Your task to perform on an android device: View the shopping cart on ebay. Add razer blade to the cart on ebay, then select checkout. Image 0: 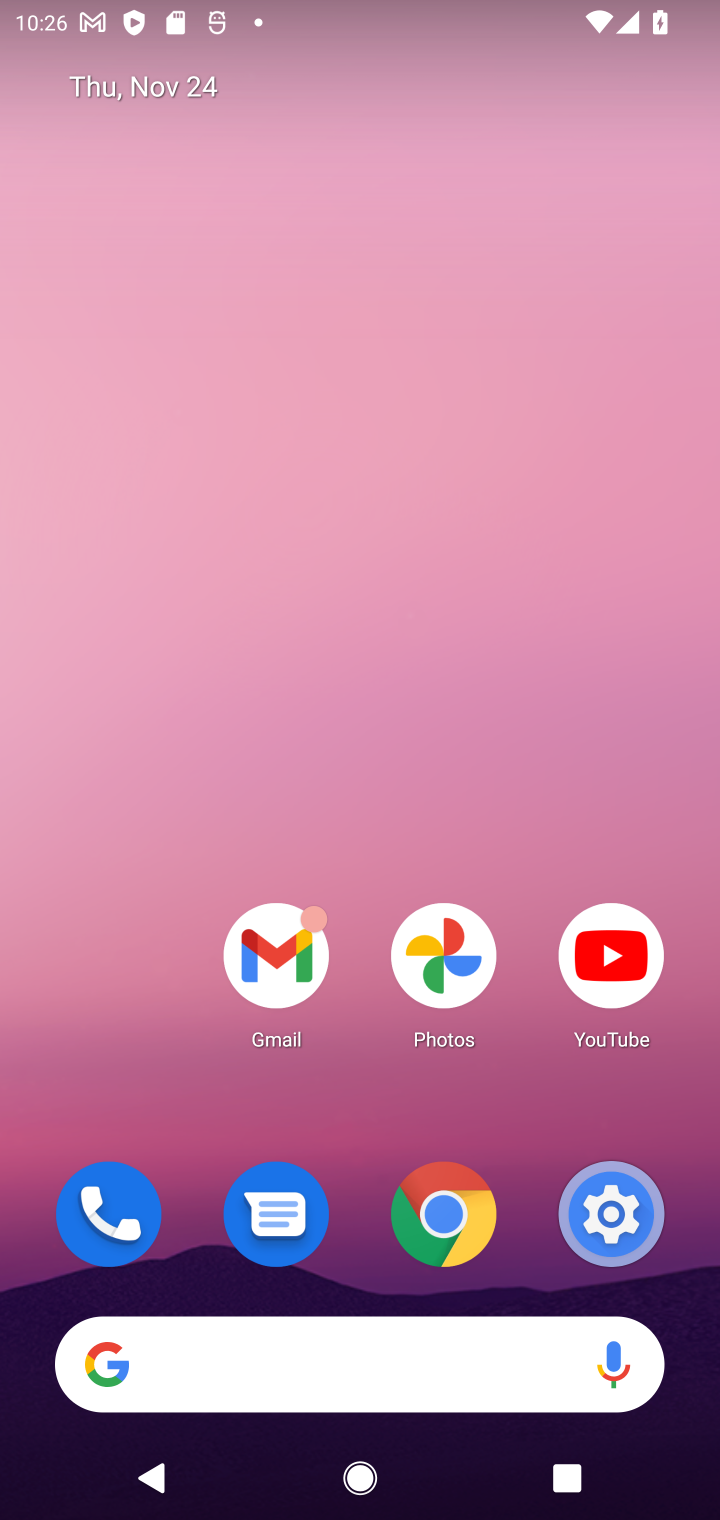
Step 0: click (334, 1362)
Your task to perform on an android device: View the shopping cart on ebay. Add razer blade to the cart on ebay, then select checkout. Image 1: 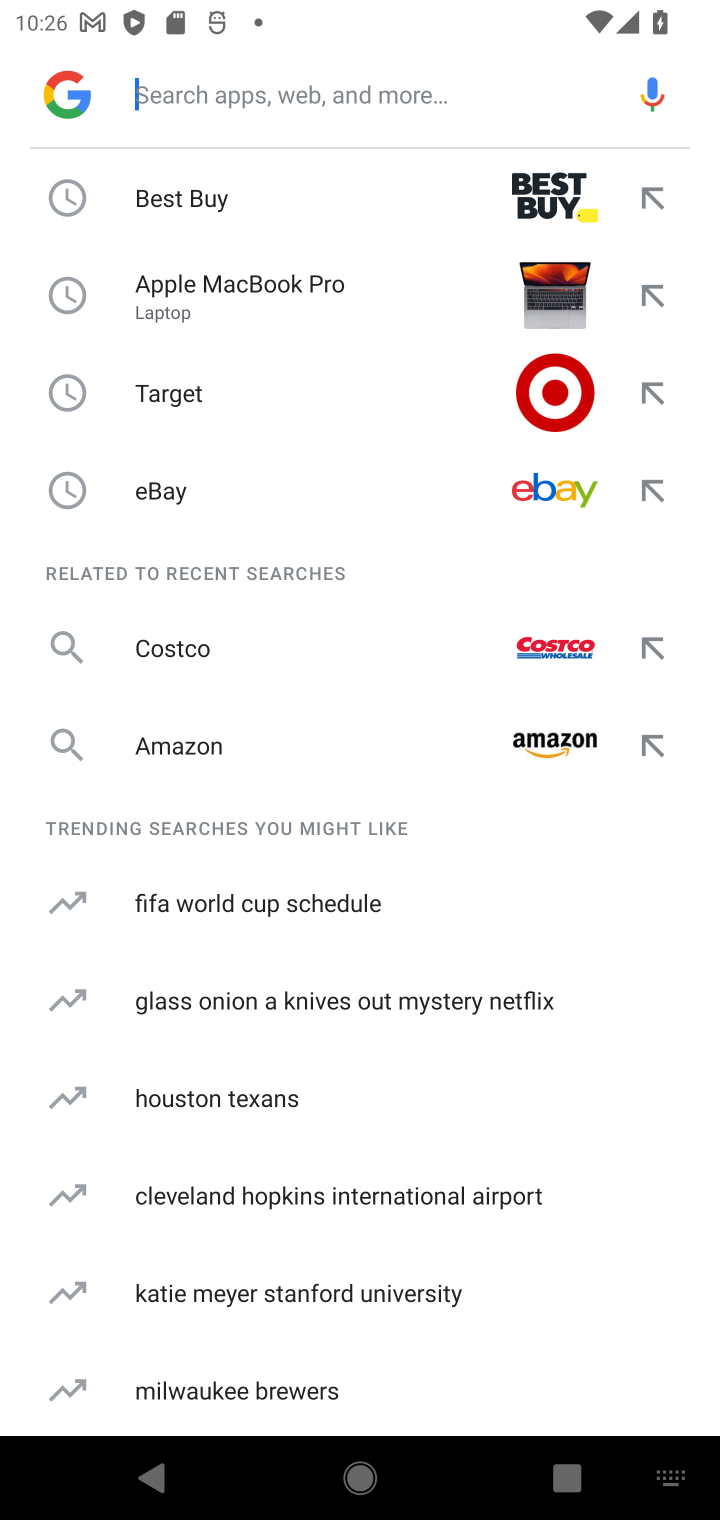
Step 1: click (236, 481)
Your task to perform on an android device: View the shopping cart on ebay. Add razer blade to the cart on ebay, then select checkout. Image 2: 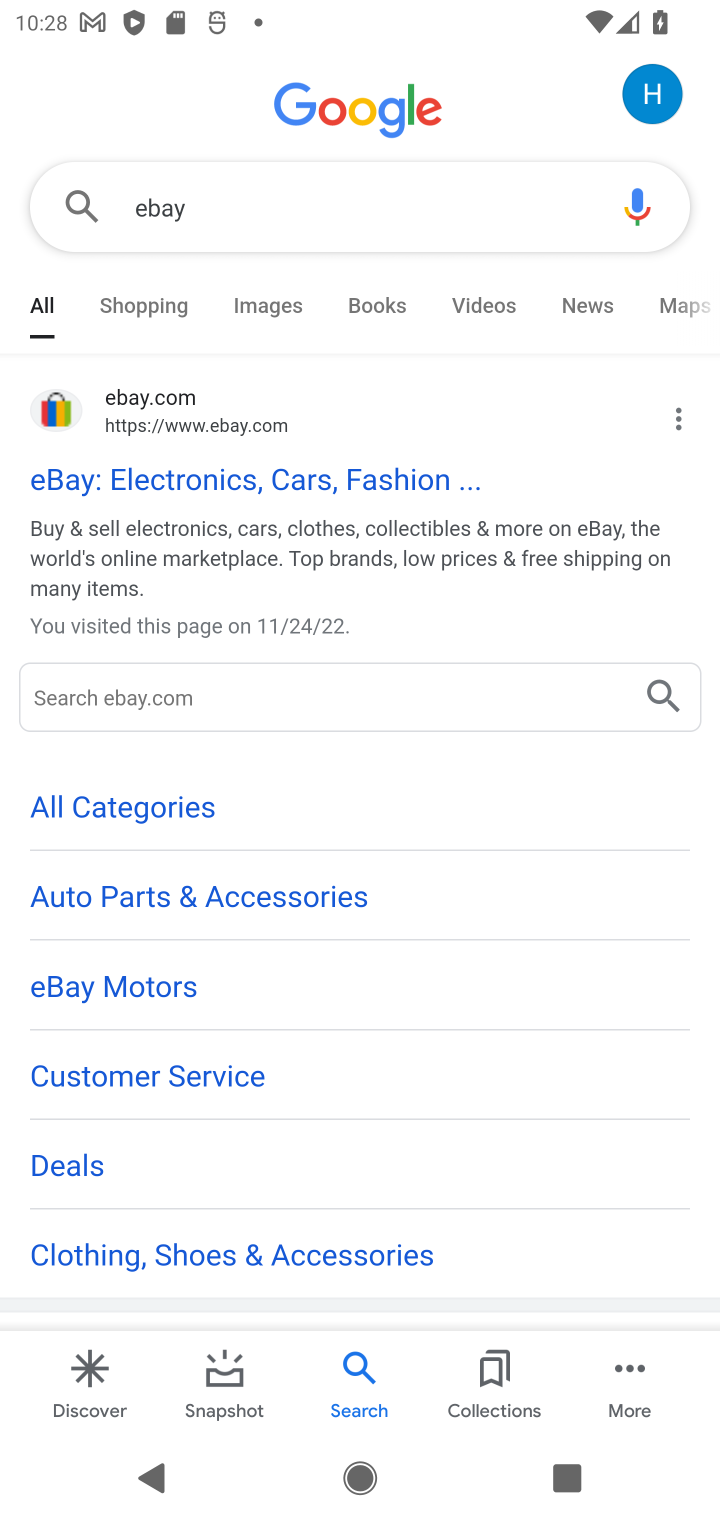
Step 2: click (238, 498)
Your task to perform on an android device: View the shopping cart on ebay. Add razer blade to the cart on ebay, then select checkout. Image 3: 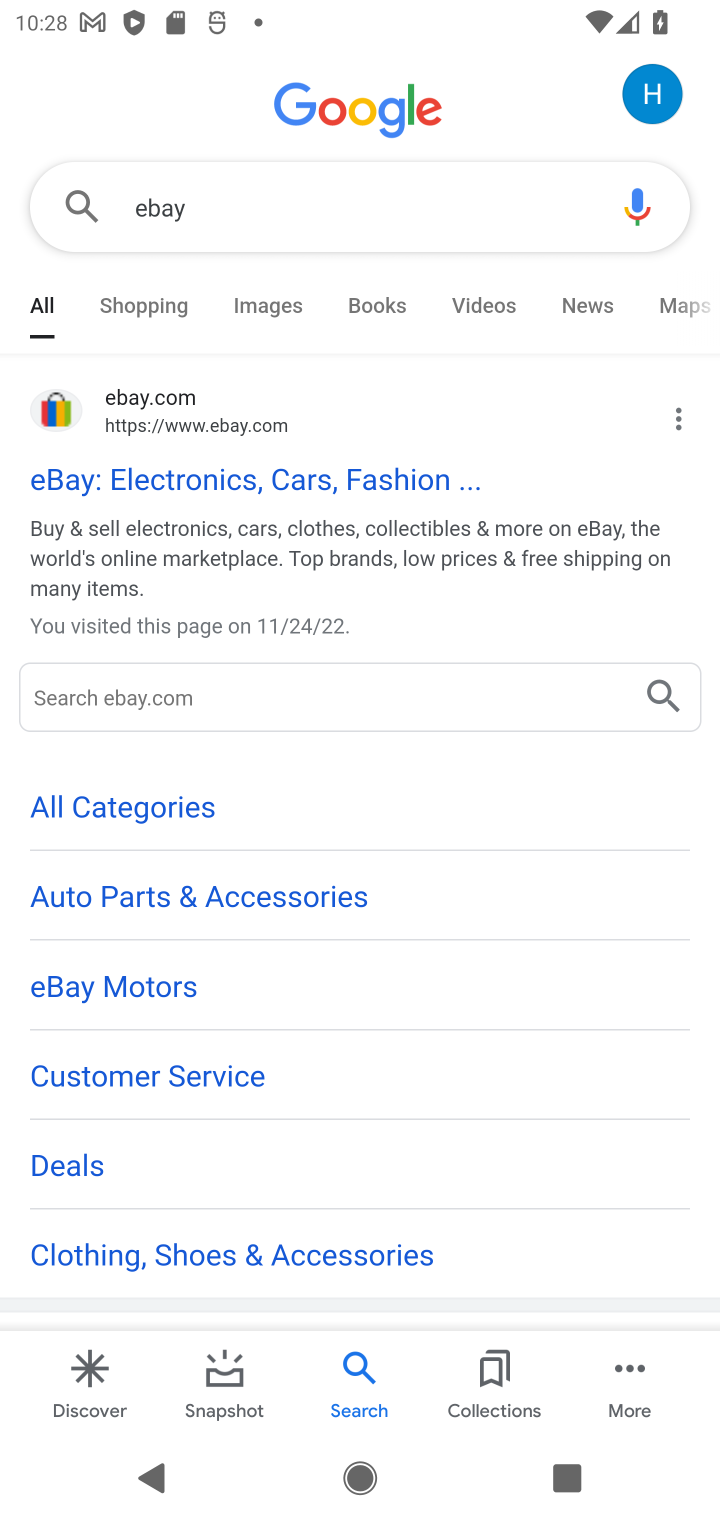
Step 3: task complete